Your task to perform on an android device: turn on translation in the chrome app Image 0: 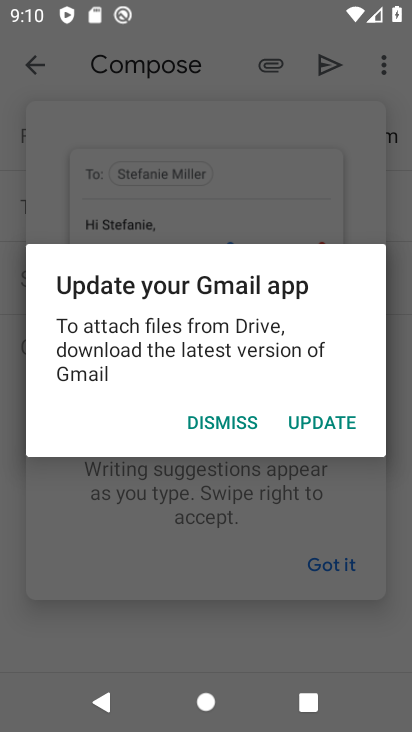
Step 0: press back button
Your task to perform on an android device: turn on translation in the chrome app Image 1: 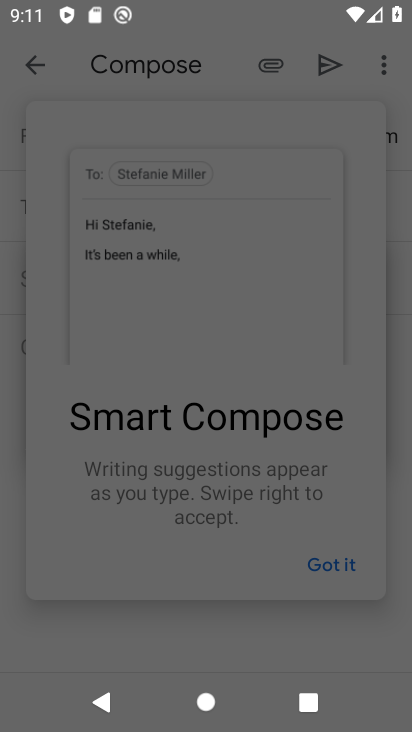
Step 1: press home button
Your task to perform on an android device: turn on translation in the chrome app Image 2: 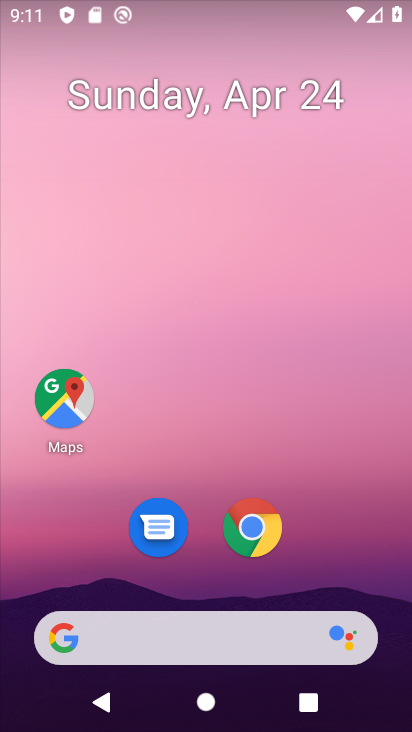
Step 2: click (257, 520)
Your task to perform on an android device: turn on translation in the chrome app Image 3: 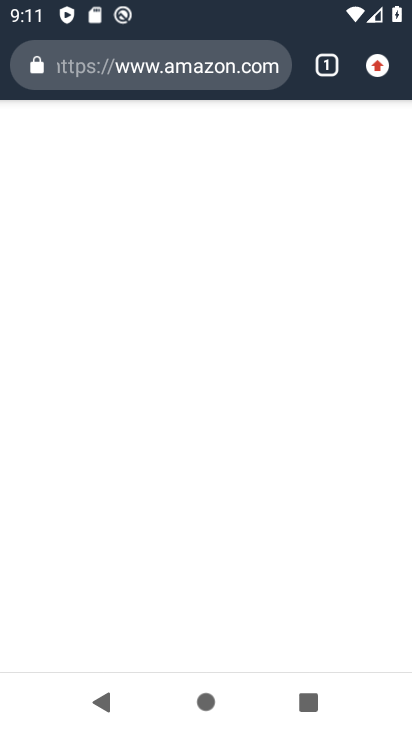
Step 3: drag from (375, 68) to (156, 580)
Your task to perform on an android device: turn on translation in the chrome app Image 4: 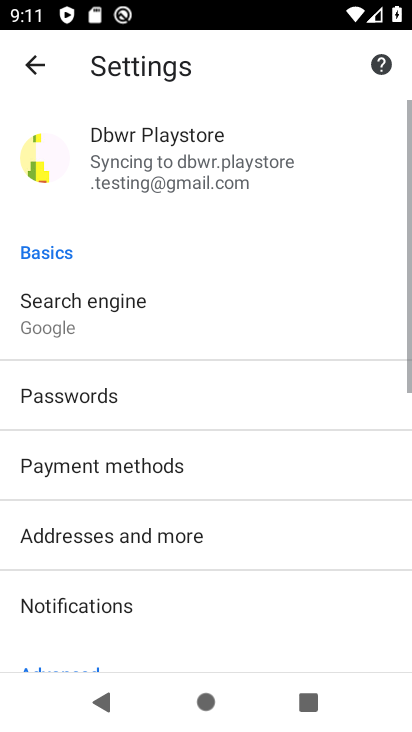
Step 4: drag from (167, 480) to (233, 64)
Your task to perform on an android device: turn on translation in the chrome app Image 5: 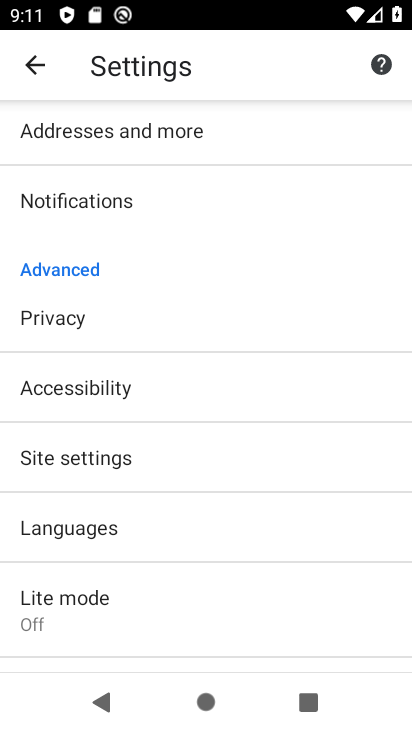
Step 5: click (67, 537)
Your task to perform on an android device: turn on translation in the chrome app Image 6: 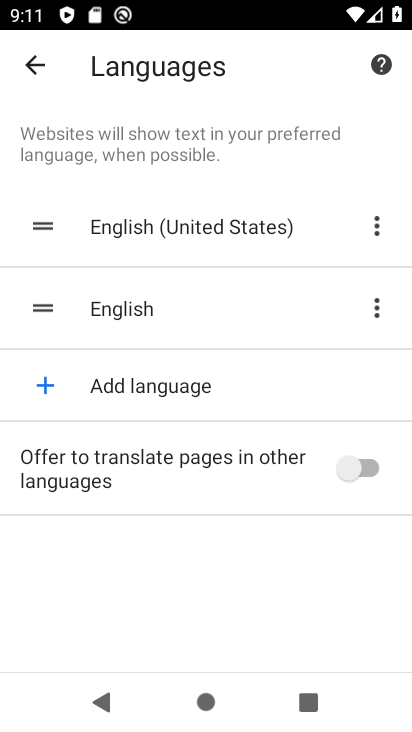
Step 6: click (333, 471)
Your task to perform on an android device: turn on translation in the chrome app Image 7: 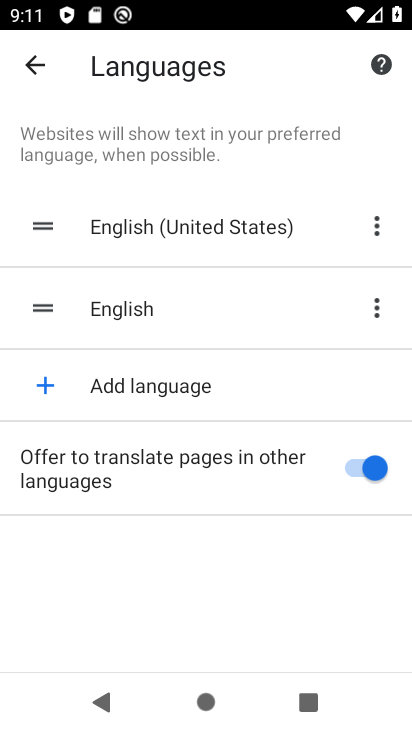
Step 7: task complete